Your task to perform on an android device: see creations saved in the google photos Image 0: 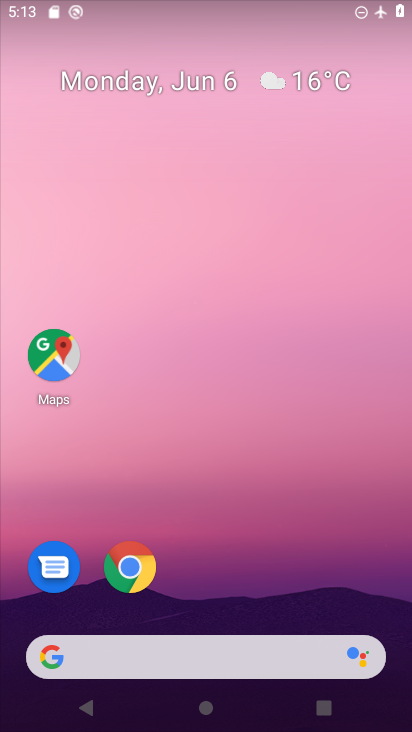
Step 0: drag from (272, 167) to (261, 92)
Your task to perform on an android device: see creations saved in the google photos Image 1: 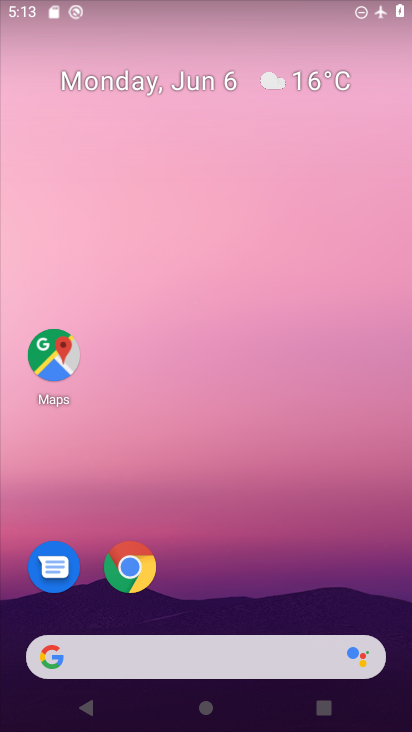
Step 1: drag from (263, 695) to (266, 219)
Your task to perform on an android device: see creations saved in the google photos Image 2: 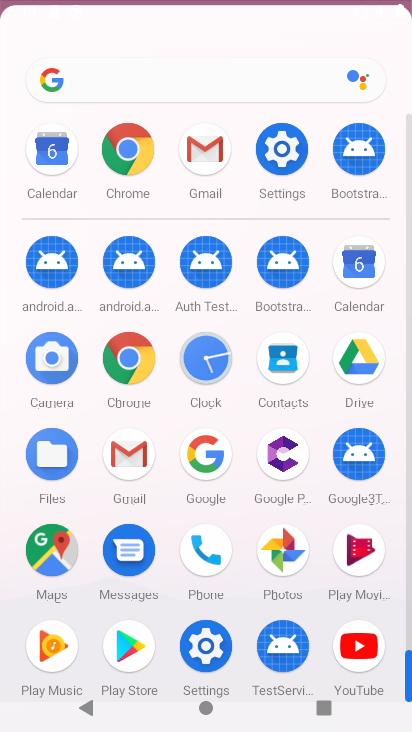
Step 2: drag from (262, 659) to (208, 97)
Your task to perform on an android device: see creations saved in the google photos Image 3: 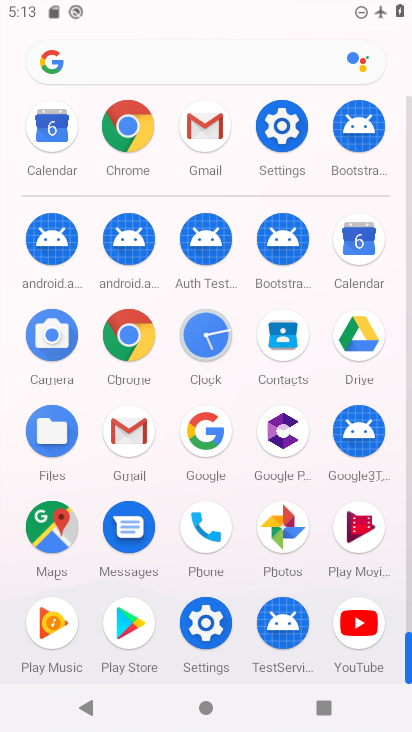
Step 3: click (282, 496)
Your task to perform on an android device: see creations saved in the google photos Image 4: 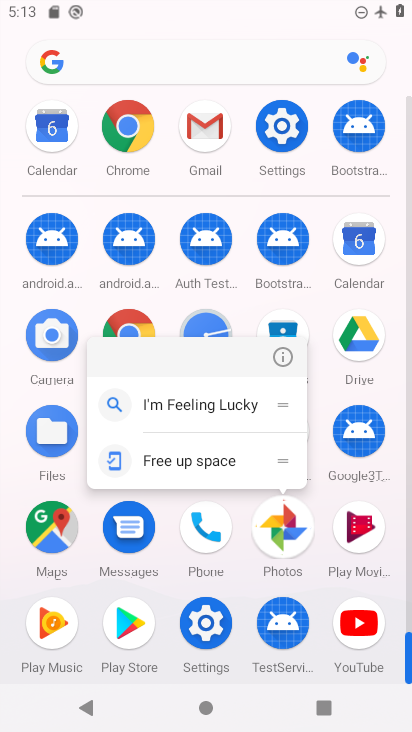
Step 4: click (285, 512)
Your task to perform on an android device: see creations saved in the google photos Image 5: 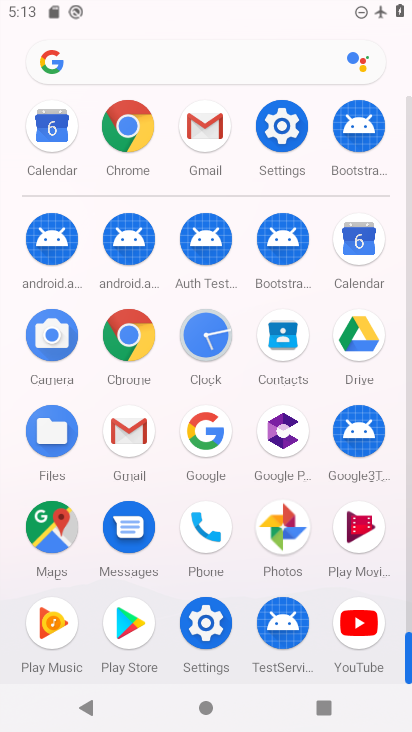
Step 5: click (285, 512)
Your task to perform on an android device: see creations saved in the google photos Image 6: 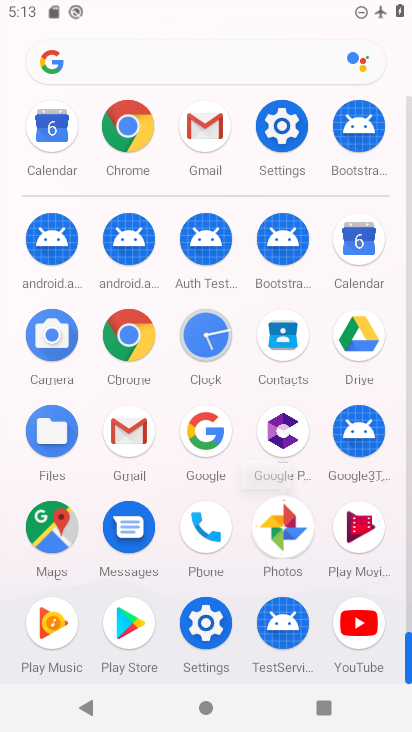
Step 6: click (286, 513)
Your task to perform on an android device: see creations saved in the google photos Image 7: 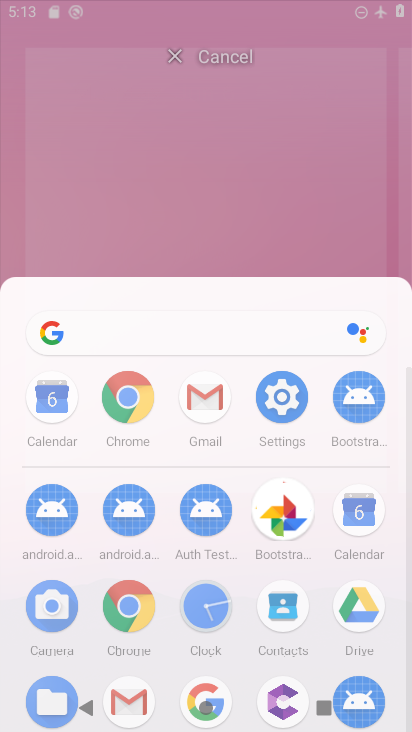
Step 7: click (282, 511)
Your task to perform on an android device: see creations saved in the google photos Image 8: 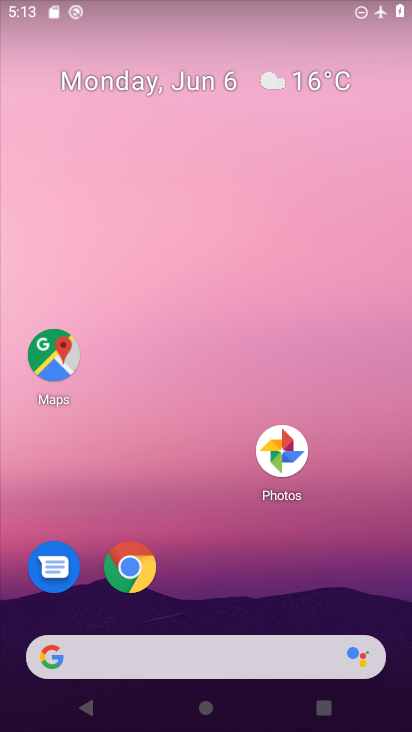
Step 8: click (291, 428)
Your task to perform on an android device: see creations saved in the google photos Image 9: 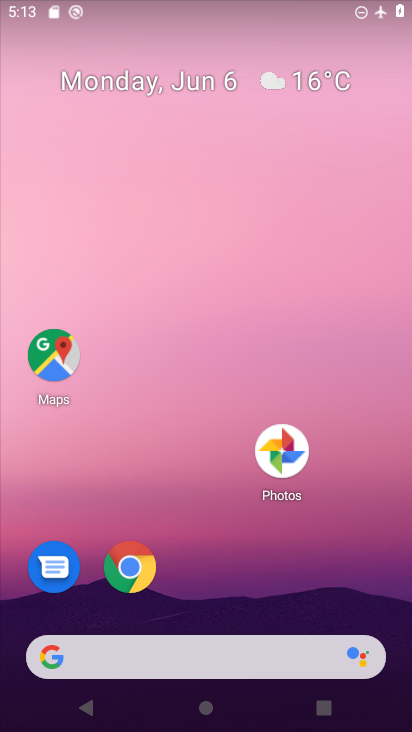
Step 9: click (291, 428)
Your task to perform on an android device: see creations saved in the google photos Image 10: 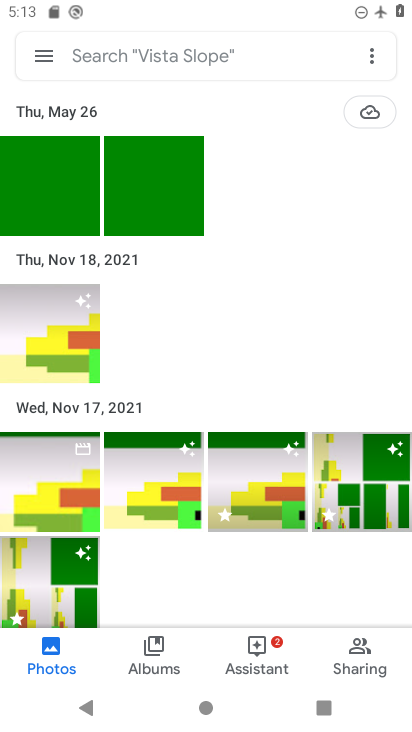
Step 10: task complete